Your task to perform on an android device: show emergency info Image 0: 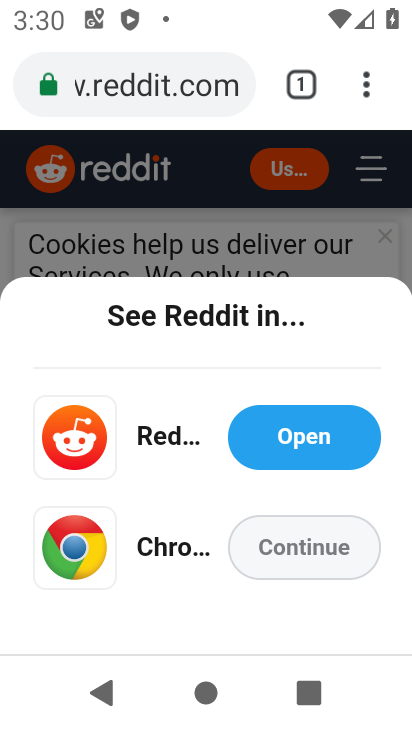
Step 0: press home button
Your task to perform on an android device: show emergency info Image 1: 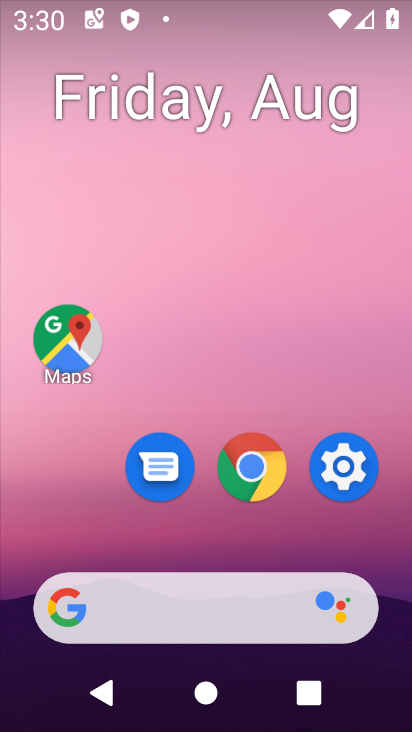
Step 1: drag from (276, 550) to (252, 57)
Your task to perform on an android device: show emergency info Image 2: 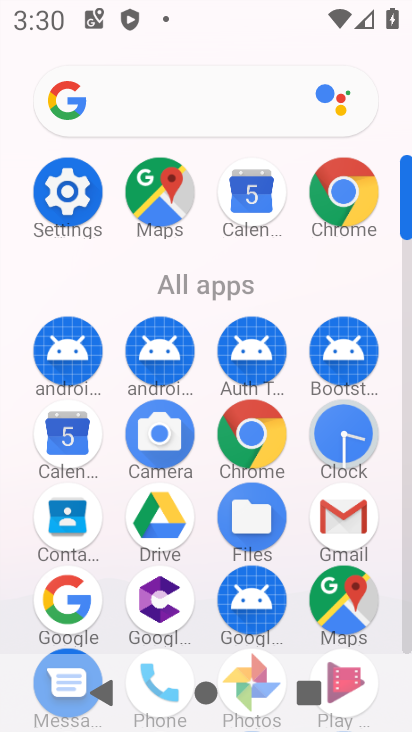
Step 2: drag from (200, 406) to (202, 93)
Your task to perform on an android device: show emergency info Image 3: 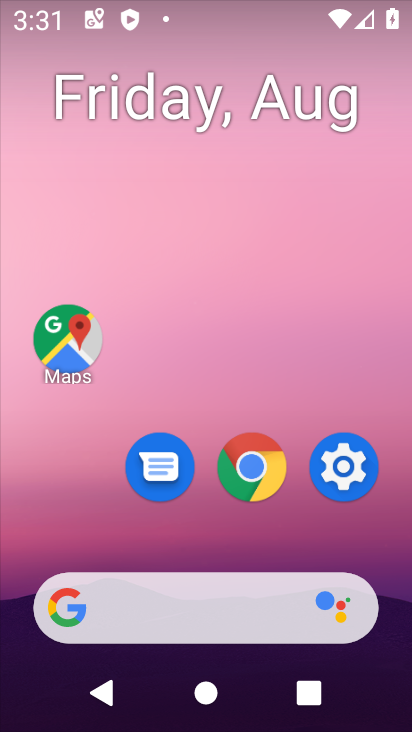
Step 3: drag from (240, 539) to (213, 24)
Your task to perform on an android device: show emergency info Image 4: 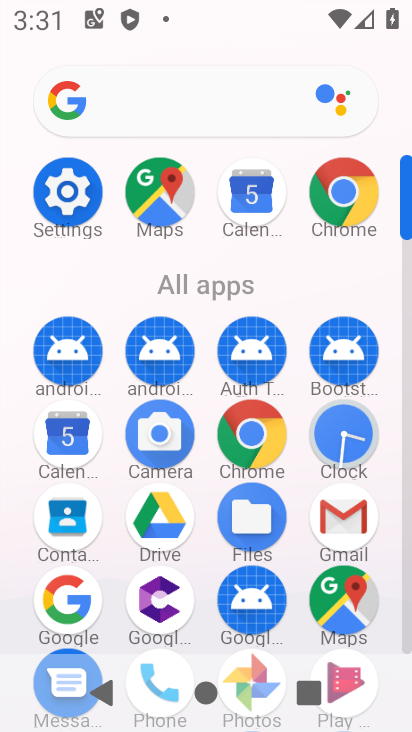
Step 4: drag from (186, 299) to (176, 30)
Your task to perform on an android device: show emergency info Image 5: 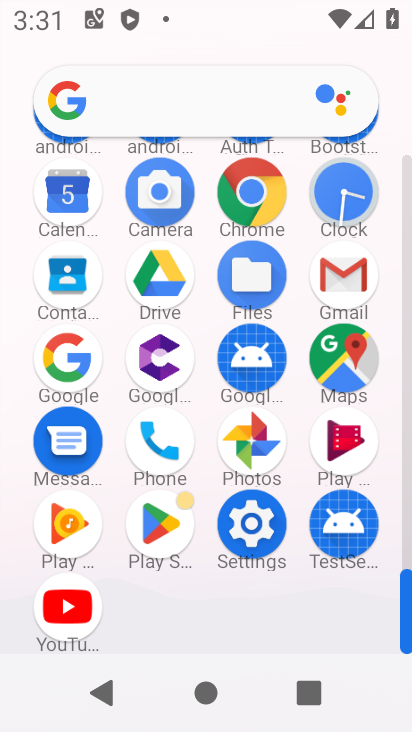
Step 5: click (175, 446)
Your task to perform on an android device: show emergency info Image 6: 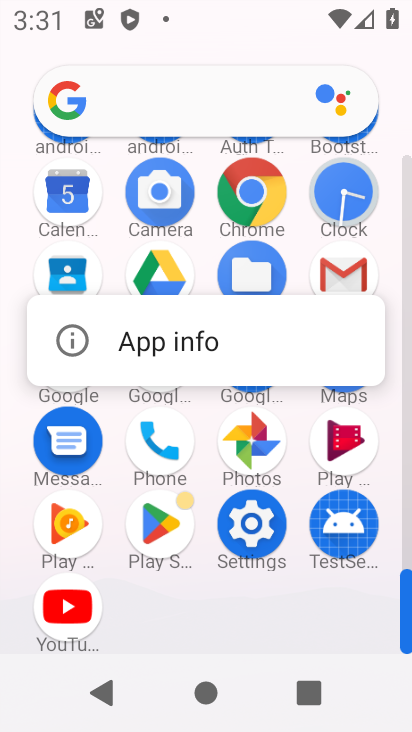
Step 6: click (175, 341)
Your task to perform on an android device: show emergency info Image 7: 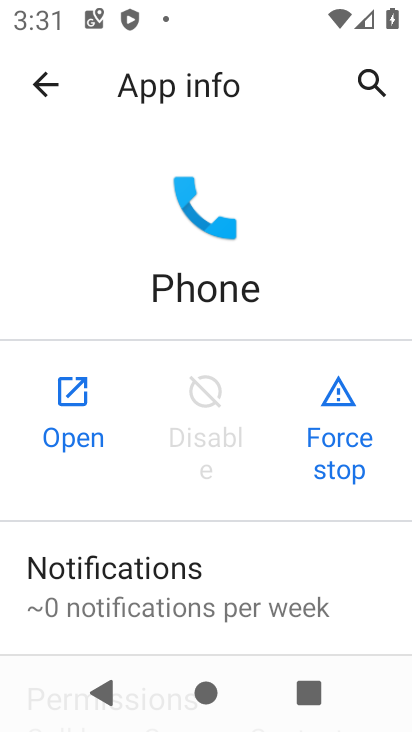
Step 7: task complete